Your task to perform on an android device: turn on notifications settings in the gmail app Image 0: 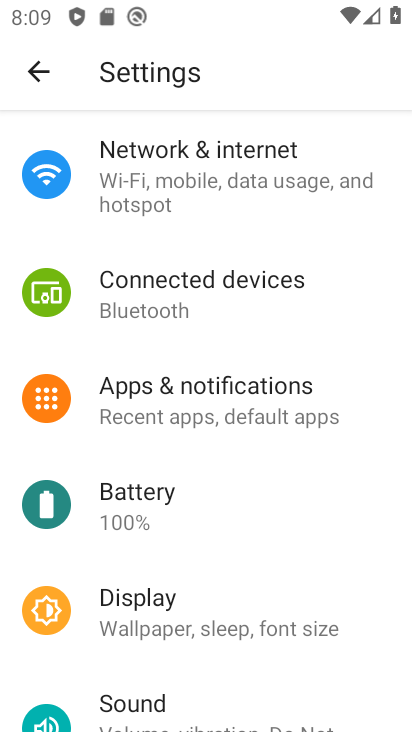
Step 0: press home button
Your task to perform on an android device: turn on notifications settings in the gmail app Image 1: 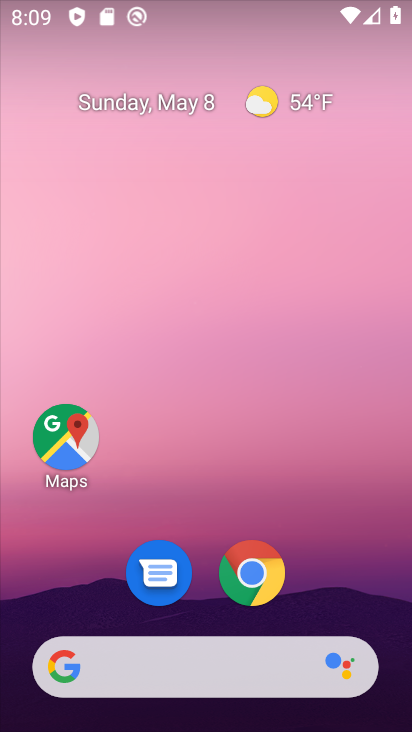
Step 1: drag from (208, 721) to (213, 182)
Your task to perform on an android device: turn on notifications settings in the gmail app Image 2: 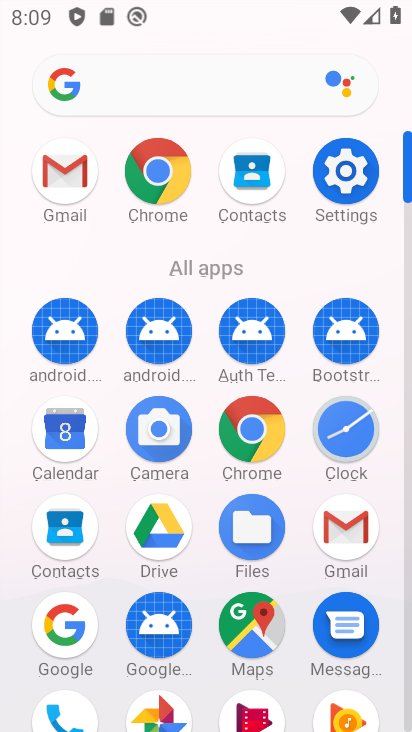
Step 2: click (332, 536)
Your task to perform on an android device: turn on notifications settings in the gmail app Image 3: 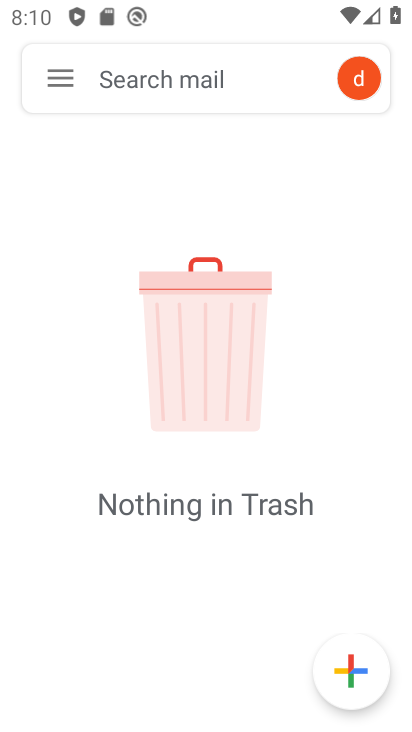
Step 3: click (62, 77)
Your task to perform on an android device: turn on notifications settings in the gmail app Image 4: 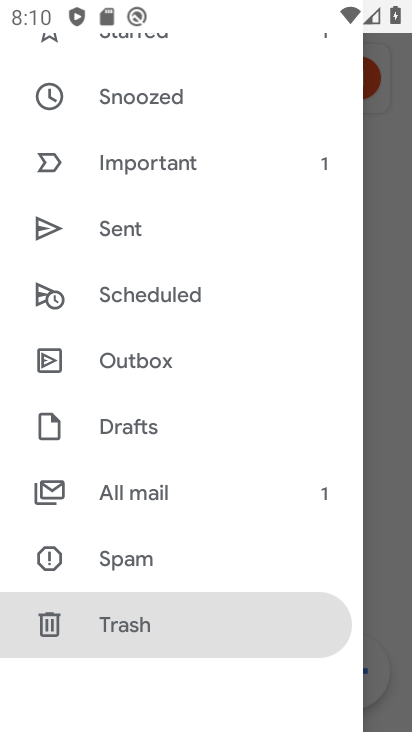
Step 4: drag from (153, 587) to (164, 345)
Your task to perform on an android device: turn on notifications settings in the gmail app Image 5: 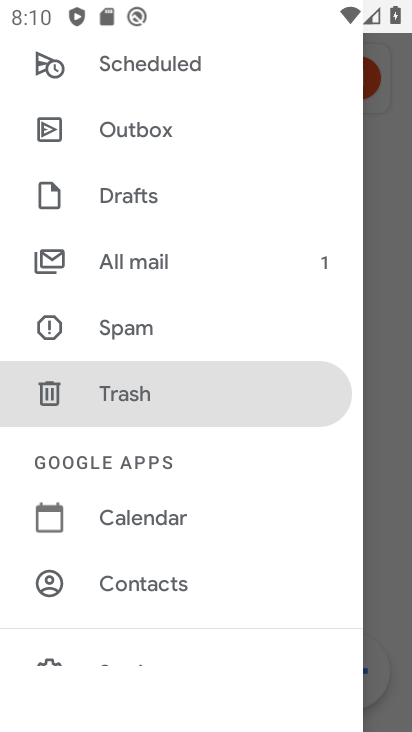
Step 5: drag from (165, 641) to (176, 355)
Your task to perform on an android device: turn on notifications settings in the gmail app Image 6: 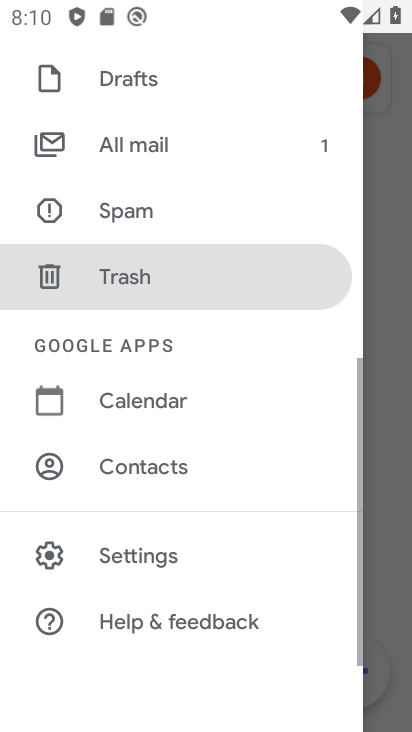
Step 6: click (163, 550)
Your task to perform on an android device: turn on notifications settings in the gmail app Image 7: 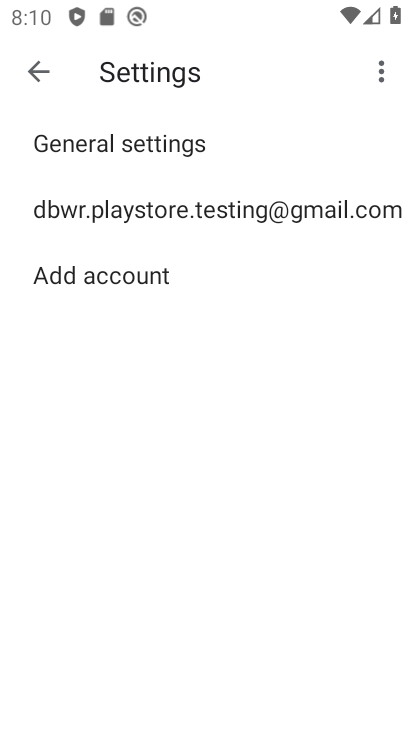
Step 7: click (276, 205)
Your task to perform on an android device: turn on notifications settings in the gmail app Image 8: 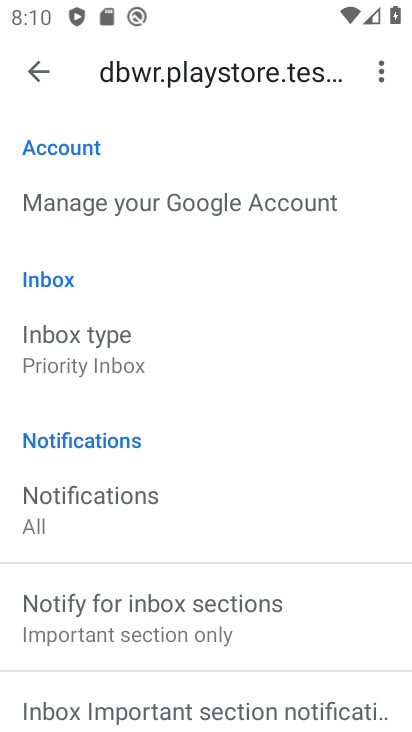
Step 8: drag from (169, 684) to (176, 529)
Your task to perform on an android device: turn on notifications settings in the gmail app Image 9: 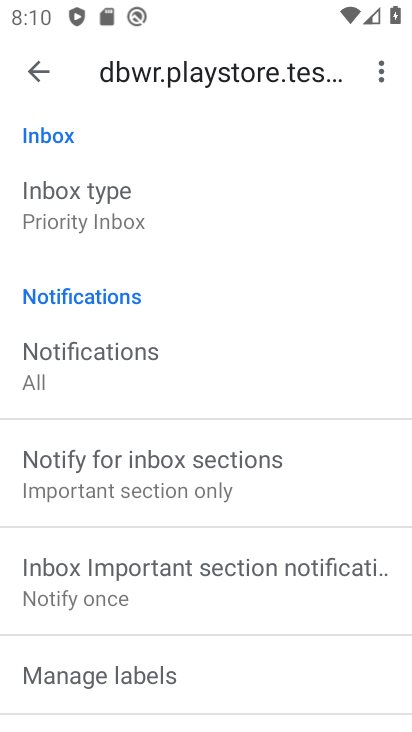
Step 9: click (105, 357)
Your task to perform on an android device: turn on notifications settings in the gmail app Image 10: 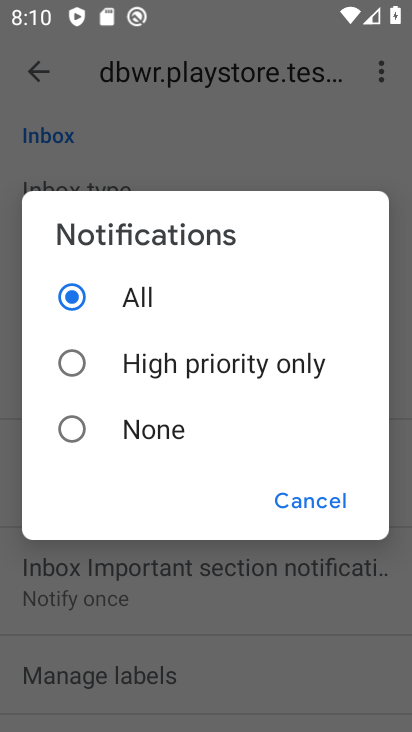
Step 10: click (320, 499)
Your task to perform on an android device: turn on notifications settings in the gmail app Image 11: 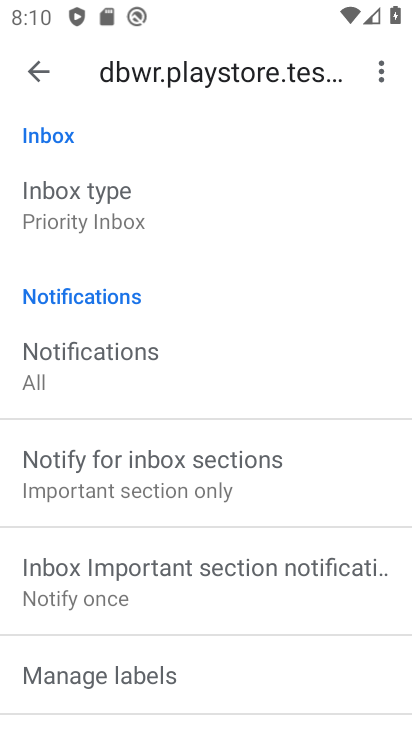
Step 11: task complete